Your task to perform on an android device: all mails in gmail Image 0: 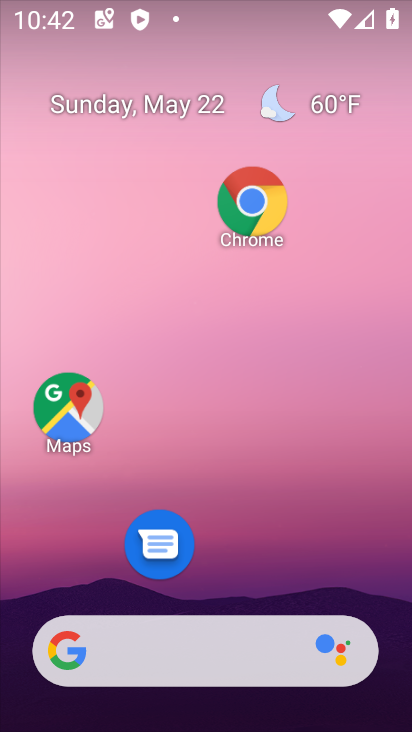
Step 0: drag from (280, 542) to (335, 56)
Your task to perform on an android device: all mails in gmail Image 1: 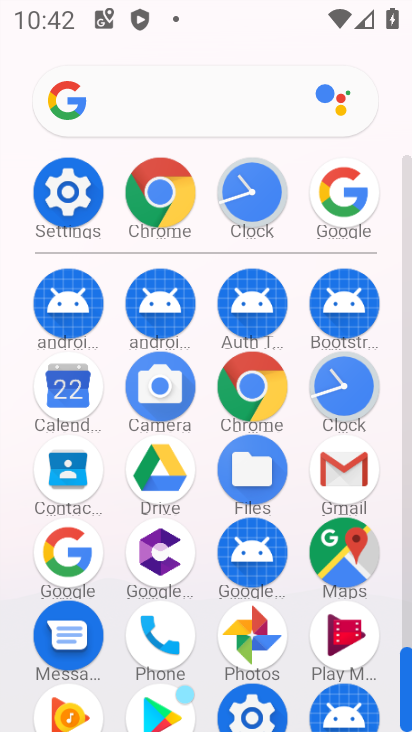
Step 1: click (344, 474)
Your task to perform on an android device: all mails in gmail Image 2: 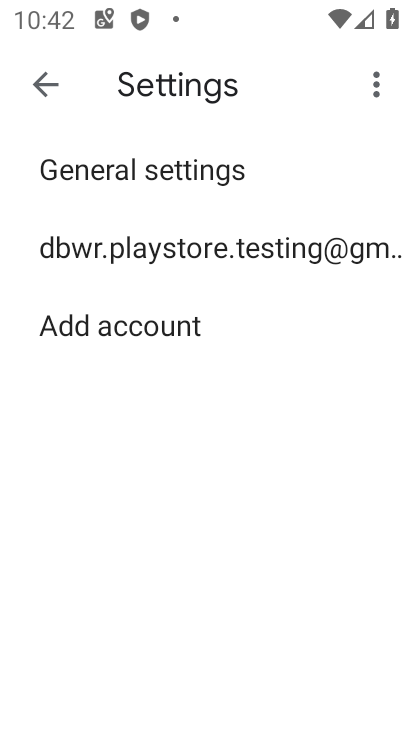
Step 2: press back button
Your task to perform on an android device: all mails in gmail Image 3: 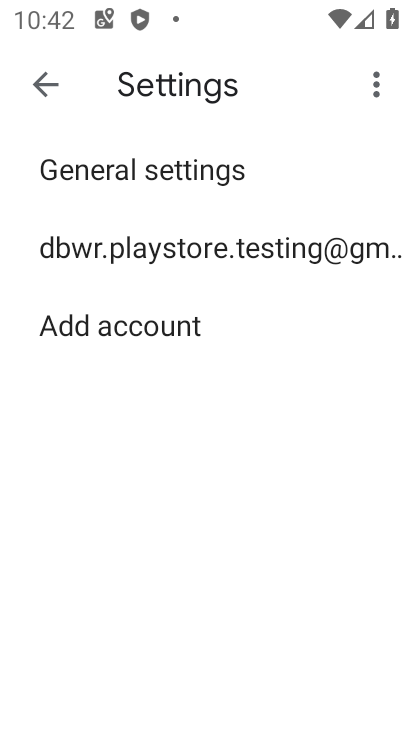
Step 3: press back button
Your task to perform on an android device: all mails in gmail Image 4: 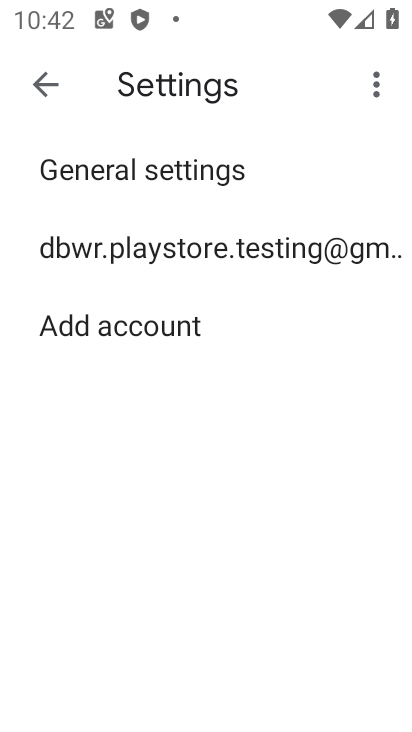
Step 4: press back button
Your task to perform on an android device: all mails in gmail Image 5: 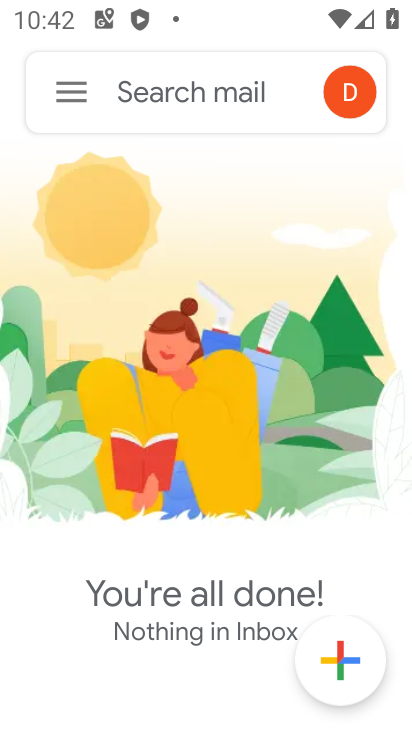
Step 5: click (68, 96)
Your task to perform on an android device: all mails in gmail Image 6: 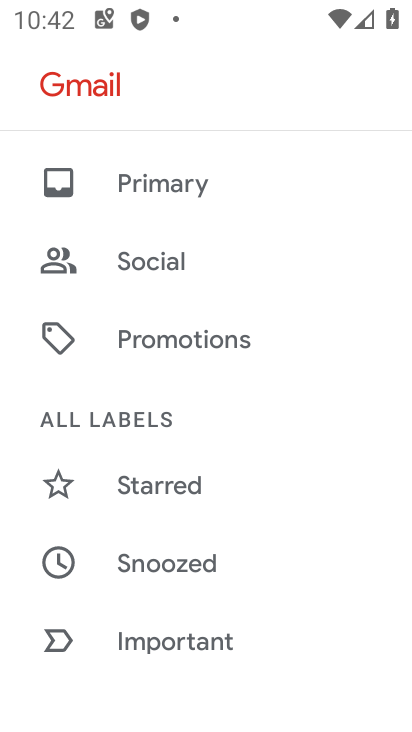
Step 6: drag from (215, 559) to (252, 119)
Your task to perform on an android device: all mails in gmail Image 7: 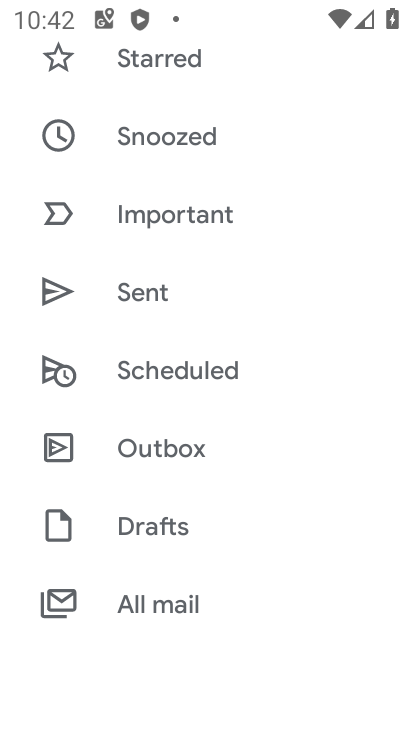
Step 7: click (174, 599)
Your task to perform on an android device: all mails in gmail Image 8: 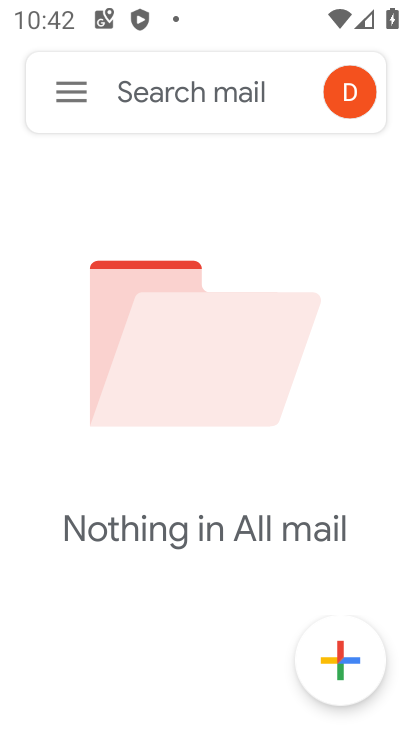
Step 8: task complete